Your task to perform on an android device: Clear all items from cart on walmart.com. Search for "logitech g pro" on walmart.com, select the first entry, and add it to the cart. Image 0: 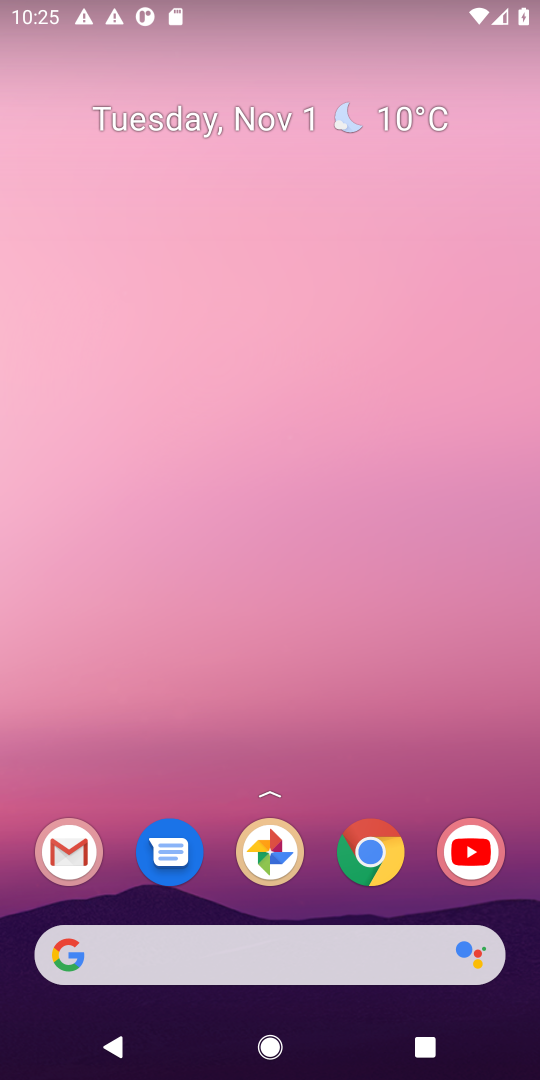
Step 0: press home button
Your task to perform on an android device: Clear all items from cart on walmart.com. Search for "logitech g pro" on walmart.com, select the first entry, and add it to the cart. Image 1: 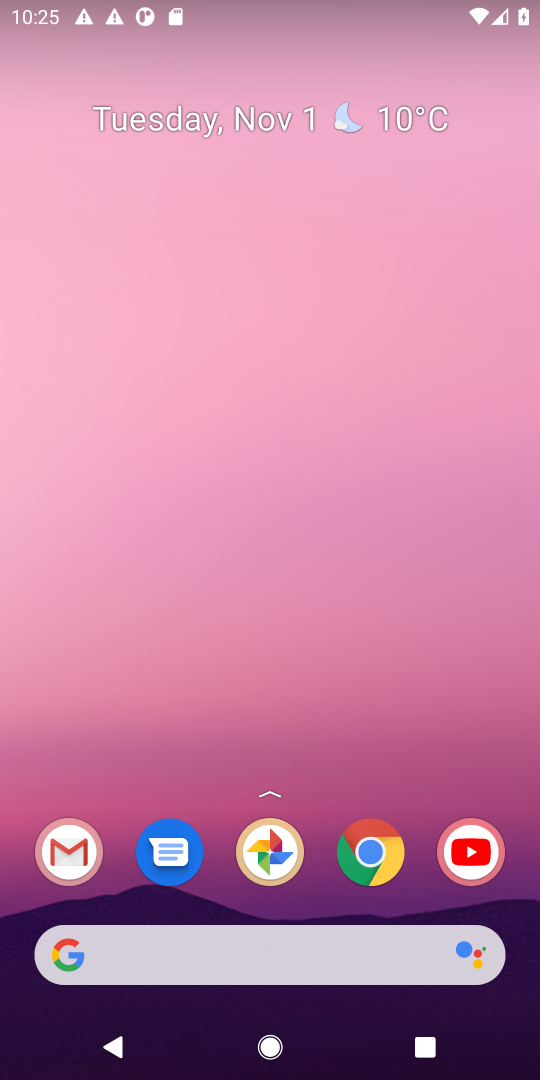
Step 1: click (67, 955)
Your task to perform on an android device: Clear all items from cart on walmart.com. Search for "logitech g pro" on walmart.com, select the first entry, and add it to the cart. Image 2: 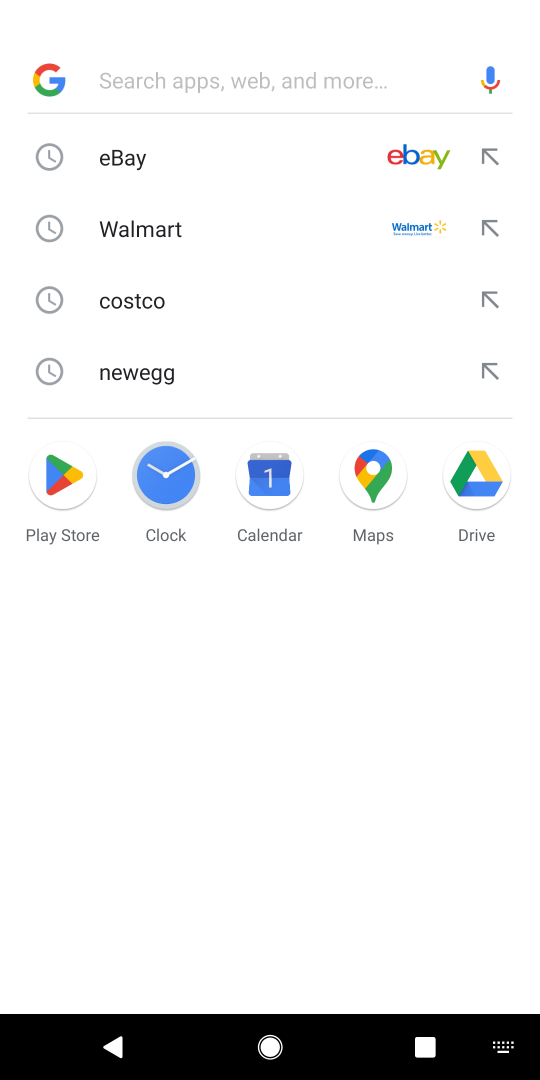
Step 2: click (143, 228)
Your task to perform on an android device: Clear all items from cart on walmart.com. Search for "logitech g pro" on walmart.com, select the first entry, and add it to the cart. Image 3: 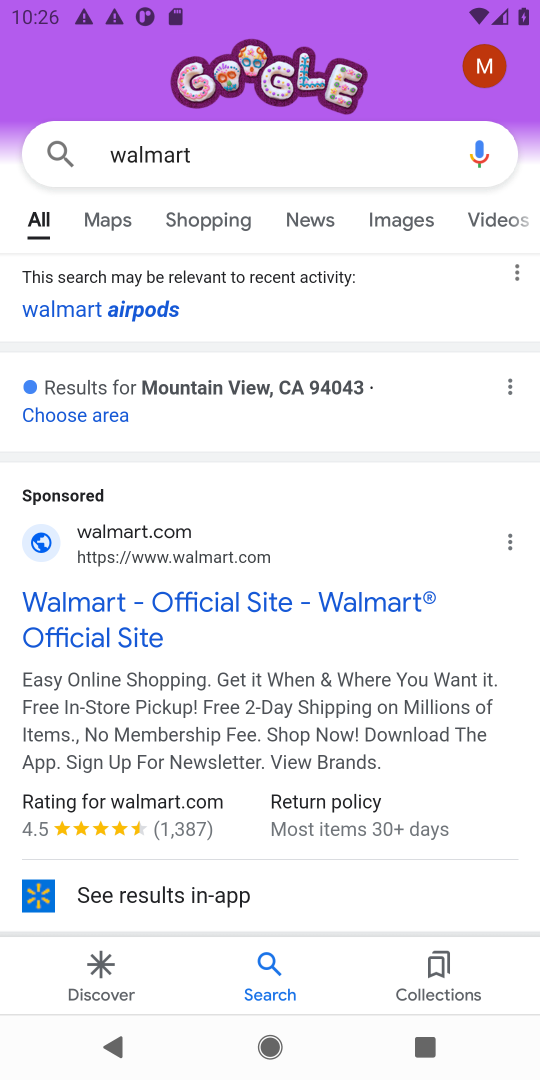
Step 3: drag from (317, 878) to (325, 461)
Your task to perform on an android device: Clear all items from cart on walmart.com. Search for "logitech g pro" on walmart.com, select the first entry, and add it to the cart. Image 4: 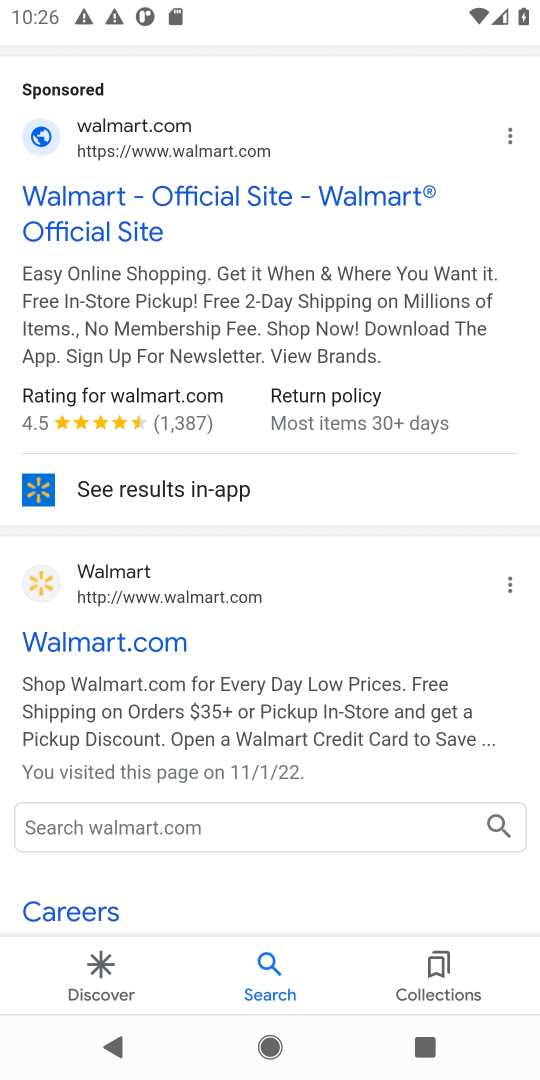
Step 4: click (121, 645)
Your task to perform on an android device: Clear all items from cart on walmart.com. Search for "logitech g pro" on walmart.com, select the first entry, and add it to the cart. Image 5: 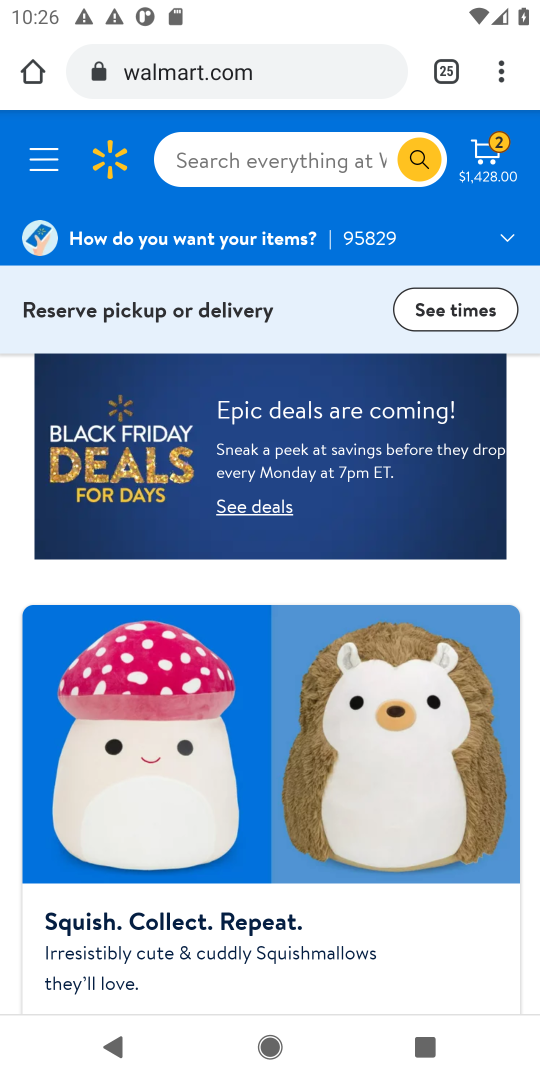
Step 5: click (308, 162)
Your task to perform on an android device: Clear all items from cart on walmart.com. Search for "logitech g pro" on walmart.com, select the first entry, and add it to the cart. Image 6: 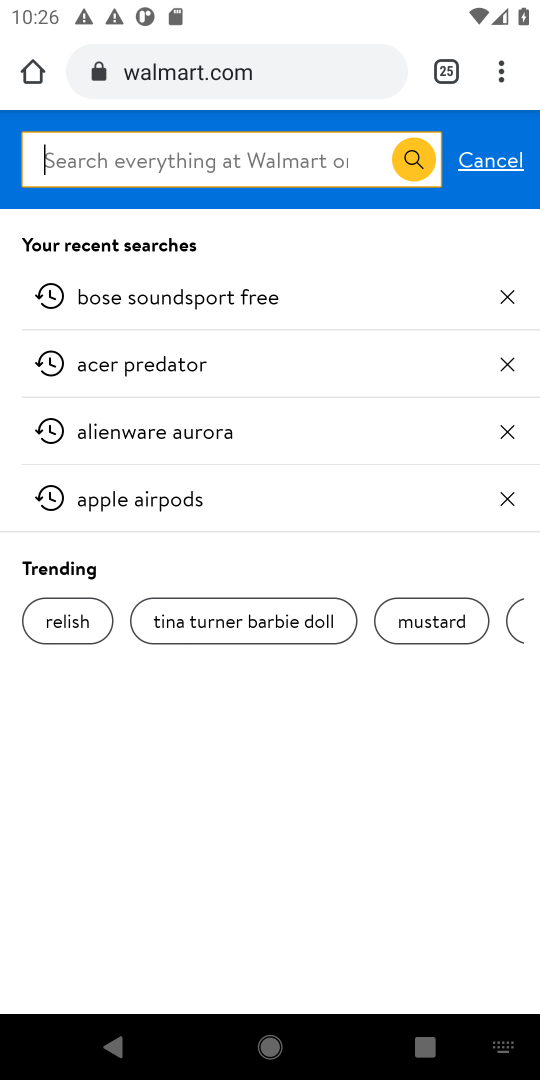
Step 6: type "logitech g pro"
Your task to perform on an android device: Clear all items from cart on walmart.com. Search for "logitech g pro" on walmart.com, select the first entry, and add it to the cart. Image 7: 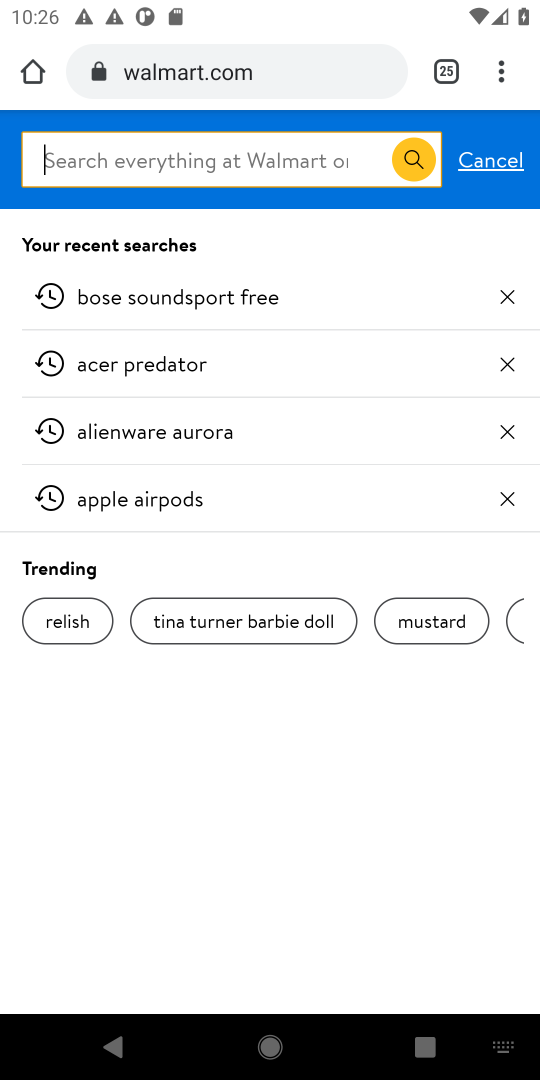
Step 7: click (206, 168)
Your task to perform on an android device: Clear all items from cart on walmart.com. Search for "logitech g pro" on walmart.com, select the first entry, and add it to the cart. Image 8: 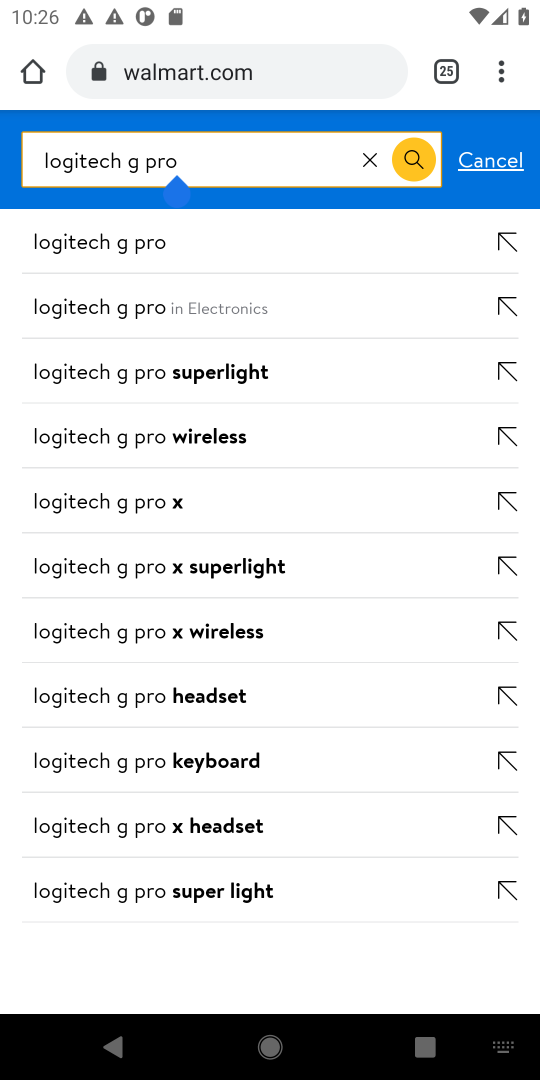
Step 8: press enter
Your task to perform on an android device: Clear all items from cart on walmart.com. Search for "logitech g pro" on walmart.com, select the first entry, and add it to the cart. Image 9: 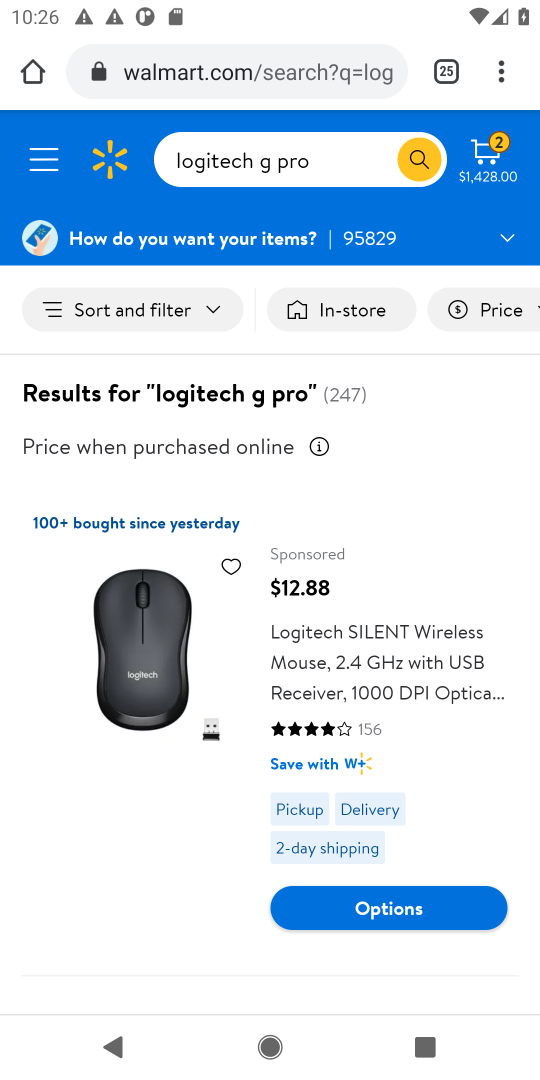
Step 9: drag from (458, 775) to (417, 398)
Your task to perform on an android device: Clear all items from cart on walmart.com. Search for "logitech g pro" on walmart.com, select the first entry, and add it to the cart. Image 10: 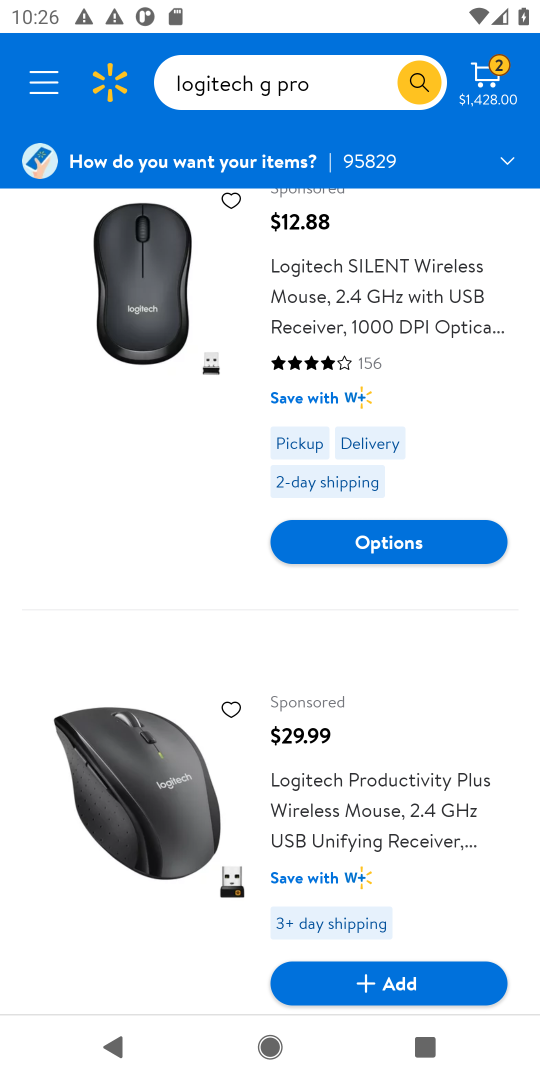
Step 10: drag from (495, 842) to (456, 300)
Your task to perform on an android device: Clear all items from cart on walmart.com. Search for "logitech g pro" on walmart.com, select the first entry, and add it to the cart. Image 11: 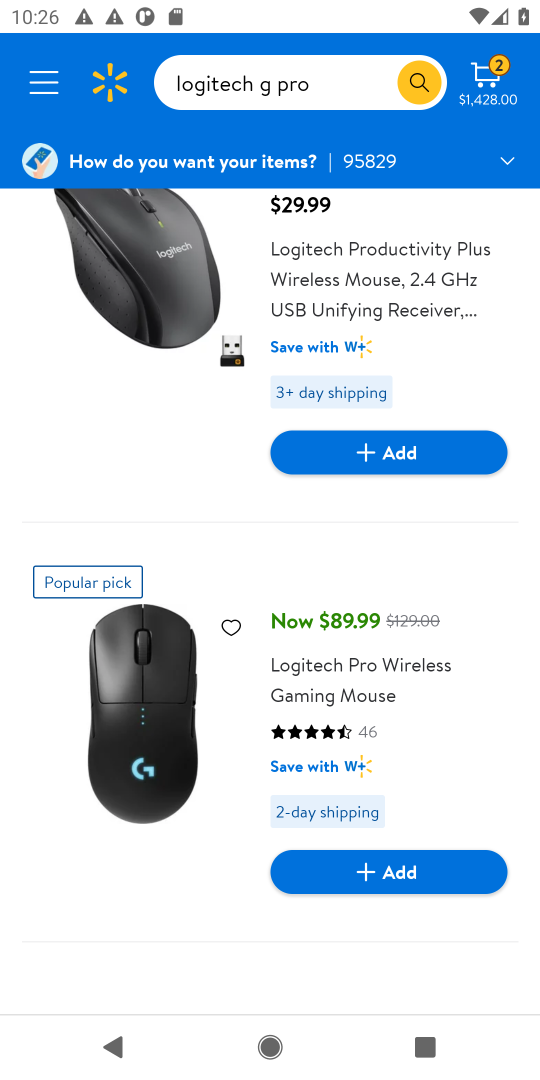
Step 11: click (412, 878)
Your task to perform on an android device: Clear all items from cart on walmart.com. Search for "logitech g pro" on walmart.com, select the first entry, and add it to the cart. Image 12: 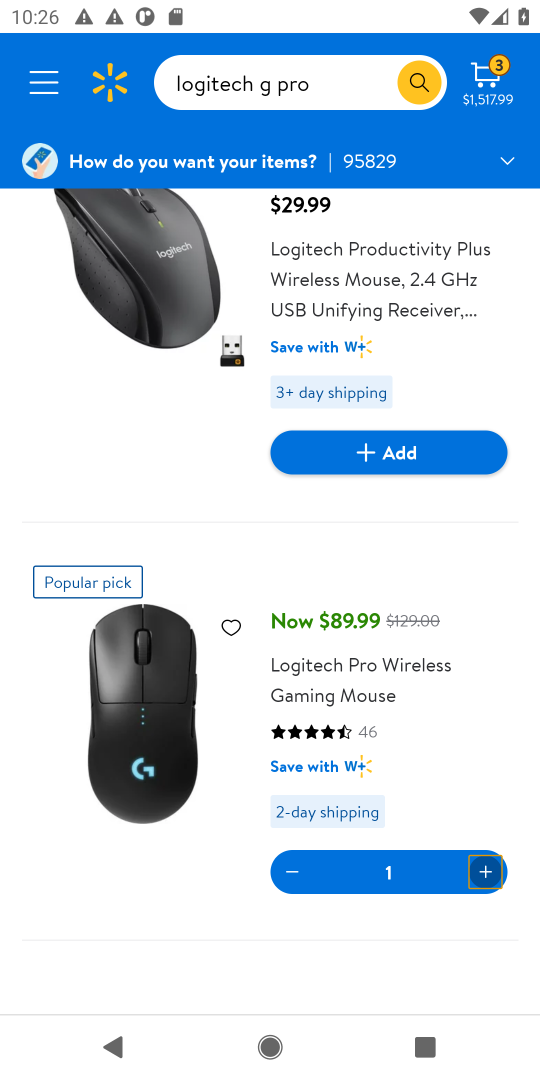
Step 12: click (490, 88)
Your task to perform on an android device: Clear all items from cart on walmart.com. Search for "logitech g pro" on walmart.com, select the first entry, and add it to the cart. Image 13: 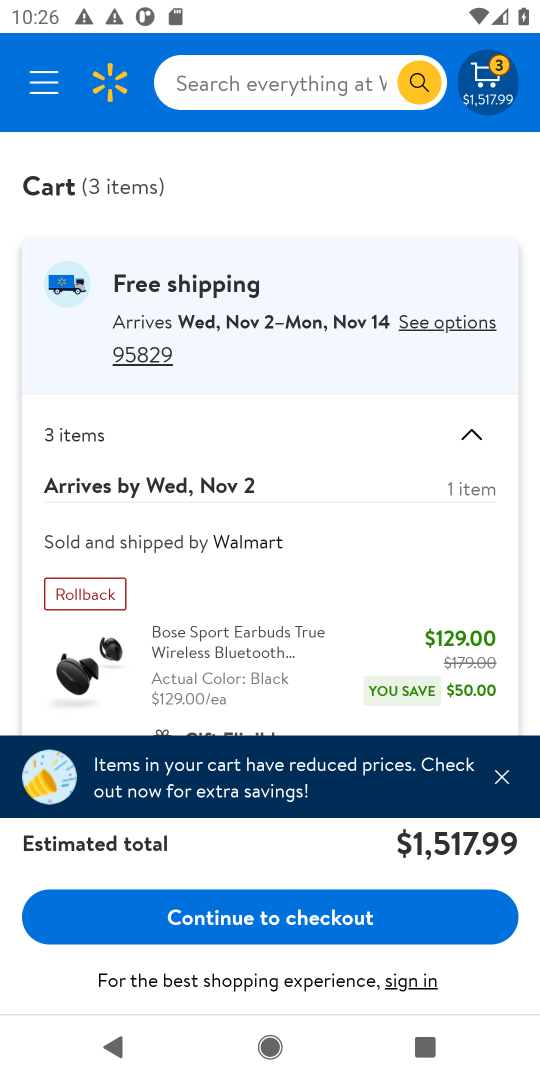
Step 13: drag from (348, 588) to (307, 216)
Your task to perform on an android device: Clear all items from cart on walmart.com. Search for "logitech g pro" on walmart.com, select the first entry, and add it to the cart. Image 14: 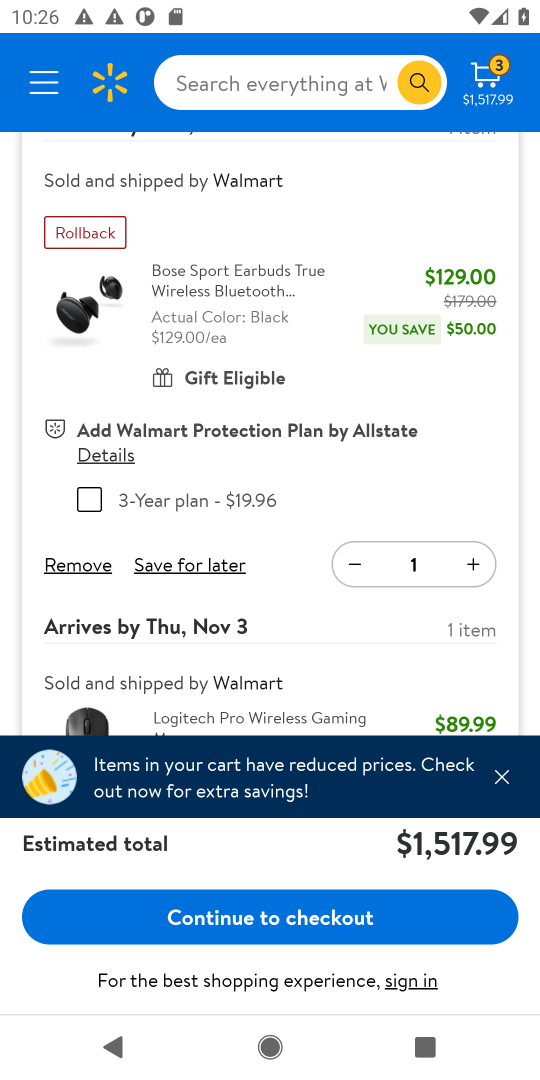
Step 14: click (78, 559)
Your task to perform on an android device: Clear all items from cart on walmart.com. Search for "logitech g pro" on walmart.com, select the first entry, and add it to the cart. Image 15: 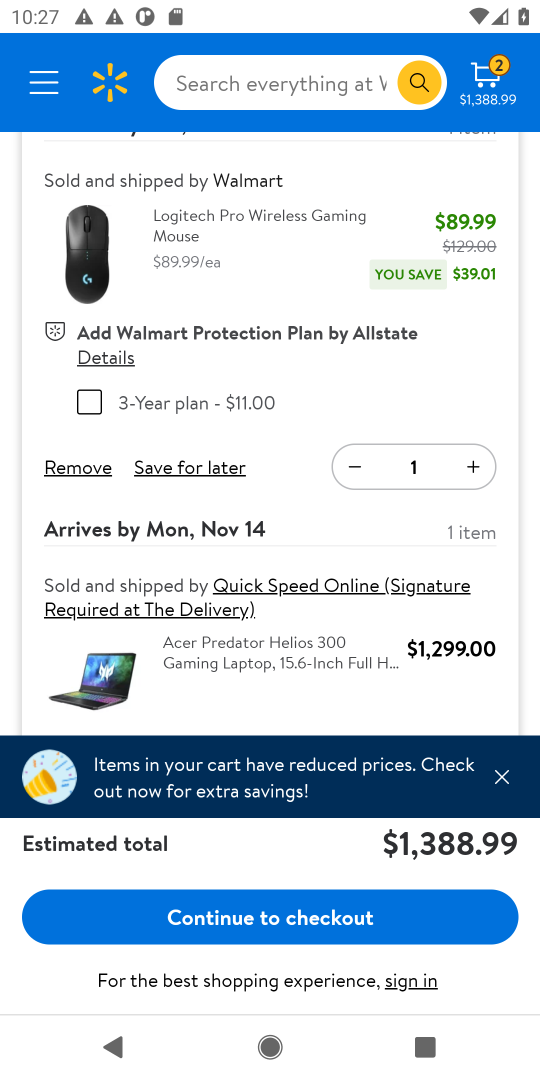
Step 15: drag from (290, 687) to (337, 156)
Your task to perform on an android device: Clear all items from cart on walmart.com. Search for "logitech g pro" on walmart.com, select the first entry, and add it to the cart. Image 16: 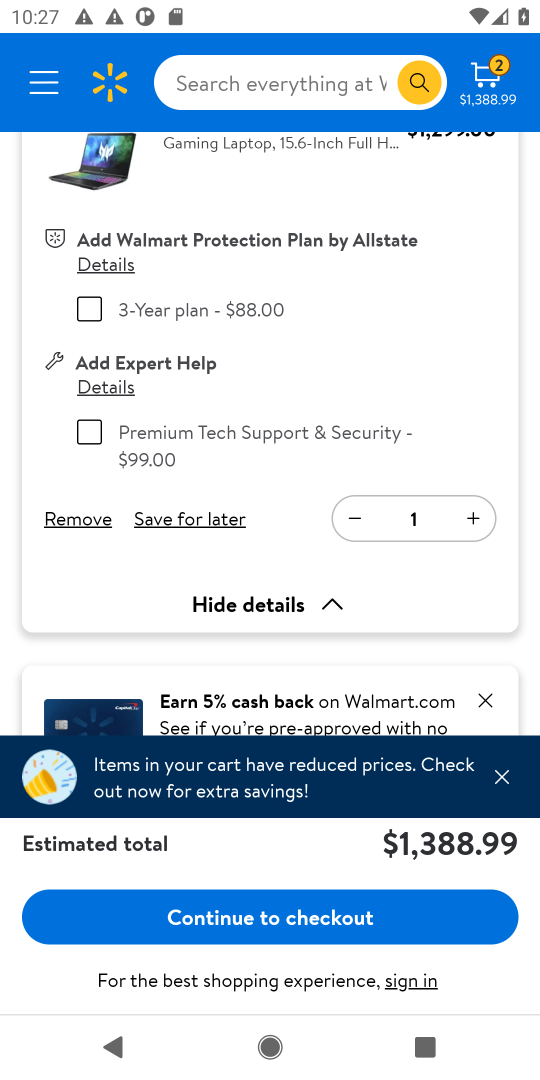
Step 16: drag from (374, 565) to (393, 178)
Your task to perform on an android device: Clear all items from cart on walmart.com. Search for "logitech g pro" on walmart.com, select the first entry, and add it to the cart. Image 17: 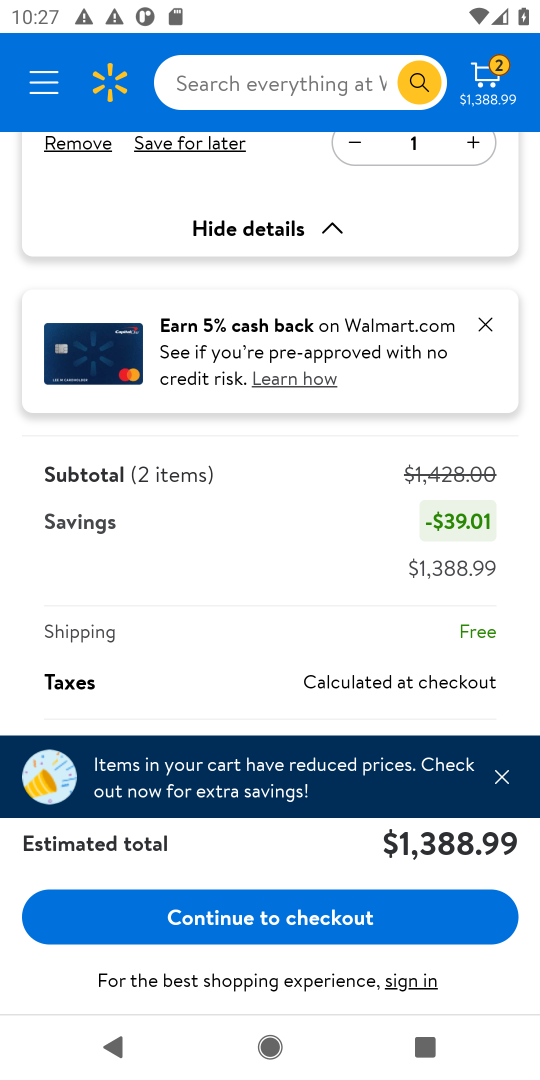
Step 17: drag from (245, 373) to (210, 810)
Your task to perform on an android device: Clear all items from cart on walmart.com. Search for "logitech g pro" on walmart.com, select the first entry, and add it to the cart. Image 18: 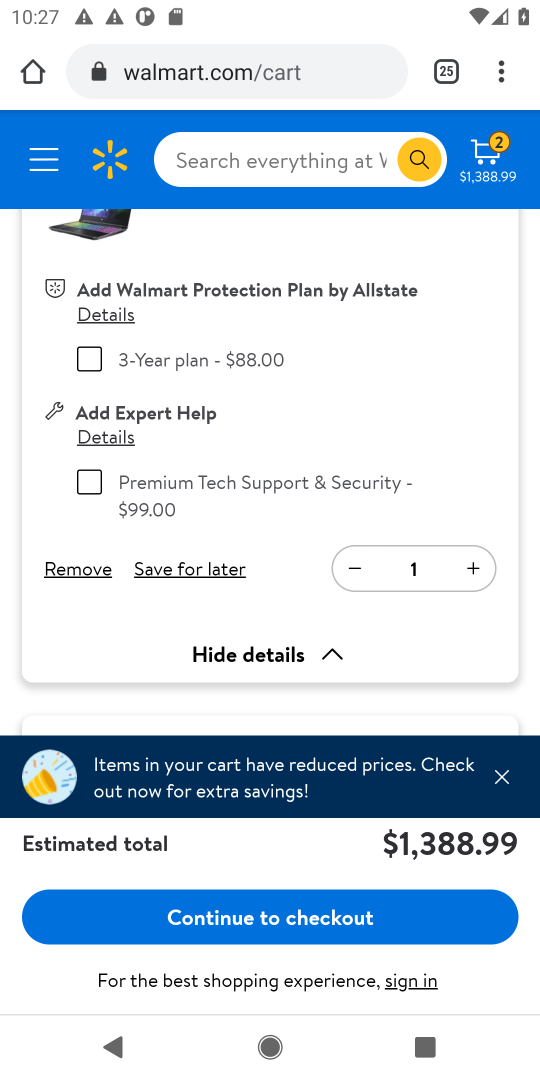
Step 18: click (80, 568)
Your task to perform on an android device: Clear all items from cart on walmart.com. Search for "logitech g pro" on walmart.com, select the first entry, and add it to the cart. Image 19: 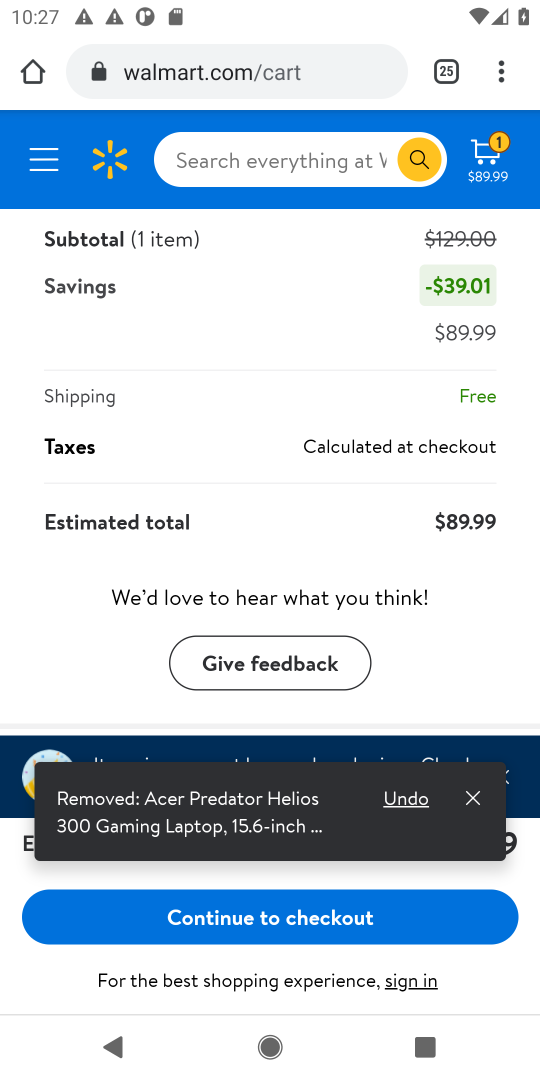
Step 19: task complete